Your task to perform on an android device: visit the assistant section in the google photos Image 0: 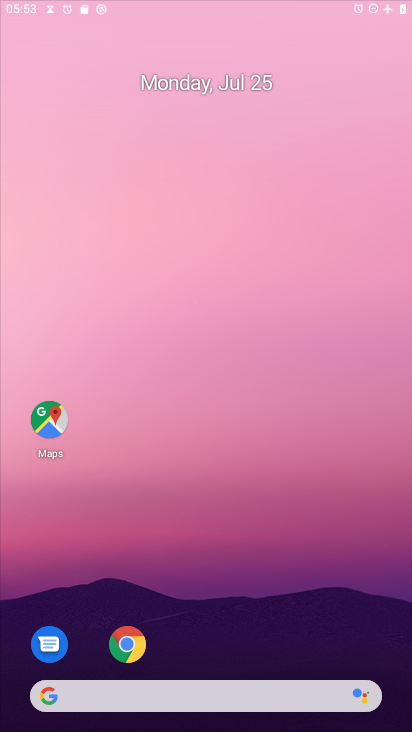
Step 0: press home button
Your task to perform on an android device: visit the assistant section in the google photos Image 1: 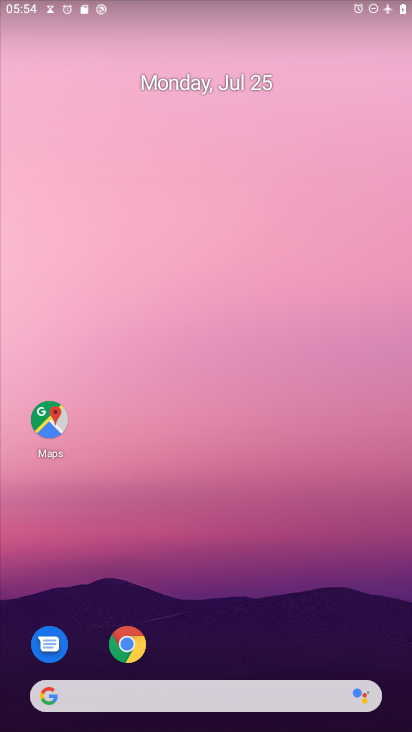
Step 1: drag from (262, 653) to (206, 82)
Your task to perform on an android device: visit the assistant section in the google photos Image 2: 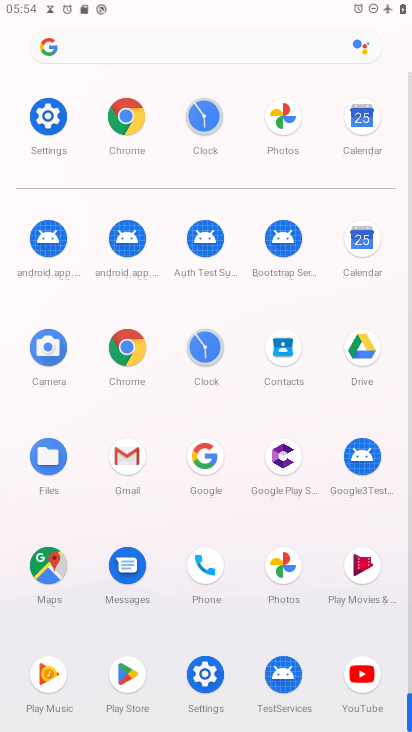
Step 2: click (277, 577)
Your task to perform on an android device: visit the assistant section in the google photos Image 3: 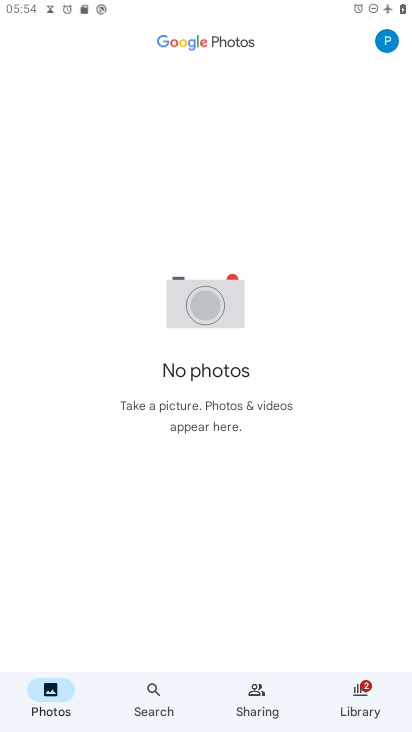
Step 3: task complete